Your task to perform on an android device: Search for electric lawnmowers on Home Depot Image 0: 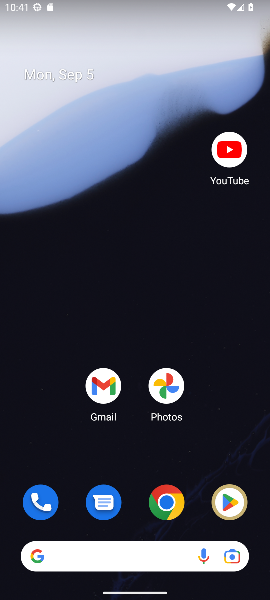
Step 0: drag from (260, 525) to (146, 9)
Your task to perform on an android device: Search for electric lawnmowers on Home Depot Image 1: 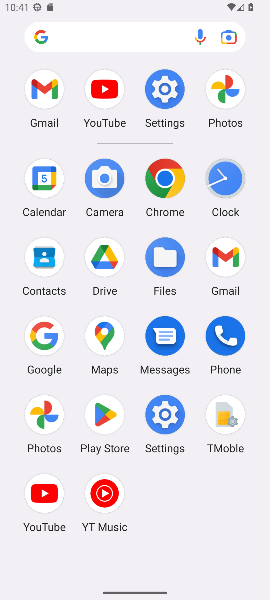
Step 1: click (46, 338)
Your task to perform on an android device: Search for electric lawnmowers on Home Depot Image 2: 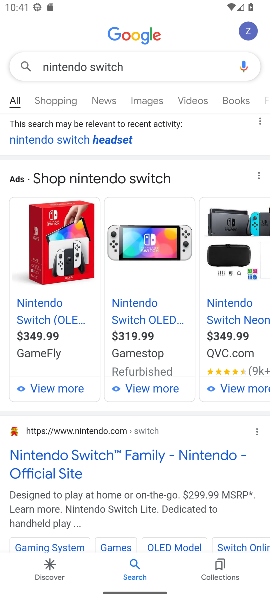
Step 2: press back button
Your task to perform on an android device: Search for electric lawnmowers on Home Depot Image 3: 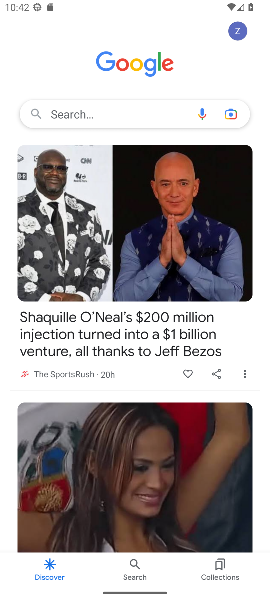
Step 3: click (94, 106)
Your task to perform on an android device: Search for electric lawnmowers on Home Depot Image 4: 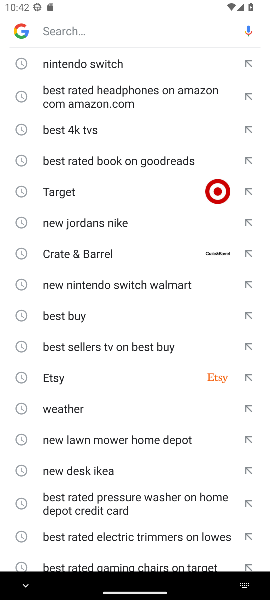
Step 4: type "electric lawnmowers on Home Depot"
Your task to perform on an android device: Search for electric lawnmowers on Home Depot Image 5: 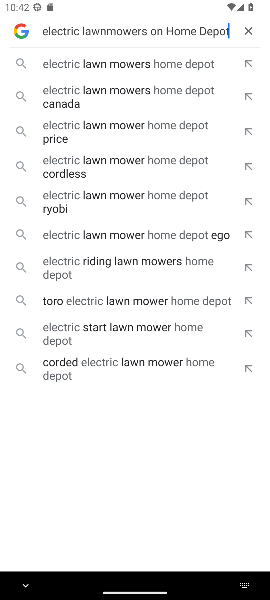
Step 5: click (92, 71)
Your task to perform on an android device: Search for electric lawnmowers on Home Depot Image 6: 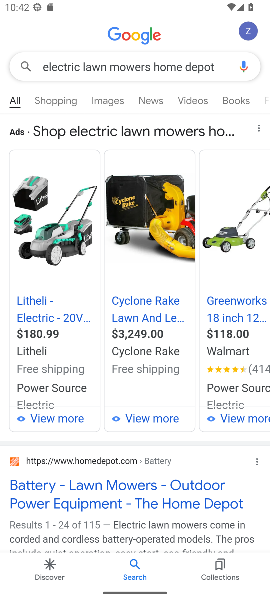
Step 6: task complete